Your task to perform on an android device: refresh tabs in the chrome app Image 0: 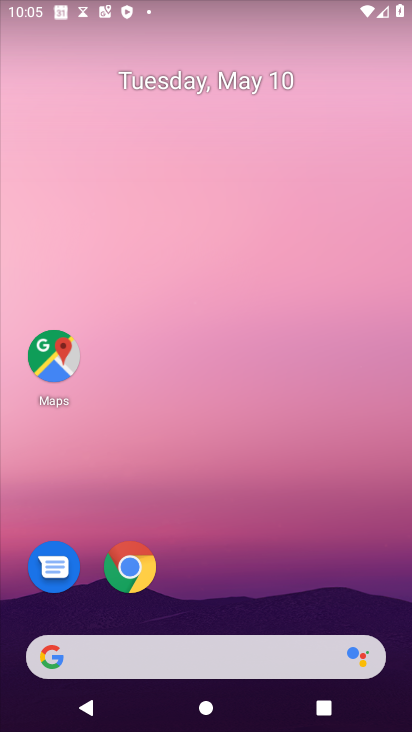
Step 0: click (127, 569)
Your task to perform on an android device: refresh tabs in the chrome app Image 1: 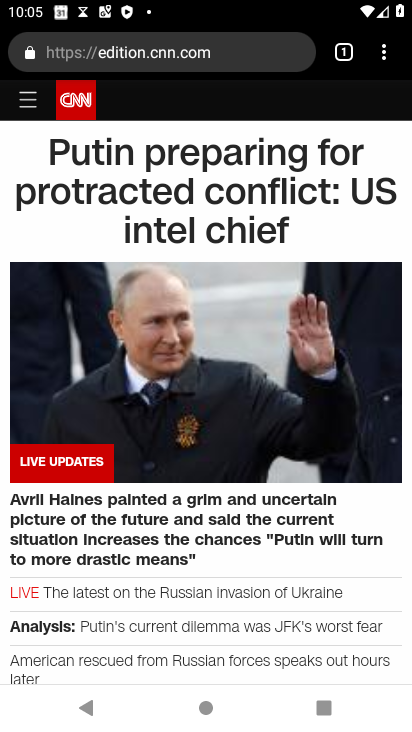
Step 1: click (375, 45)
Your task to perform on an android device: refresh tabs in the chrome app Image 2: 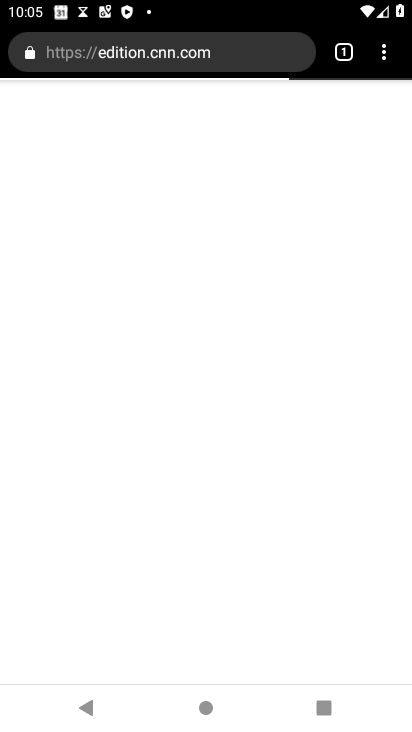
Step 2: click (368, 57)
Your task to perform on an android device: refresh tabs in the chrome app Image 3: 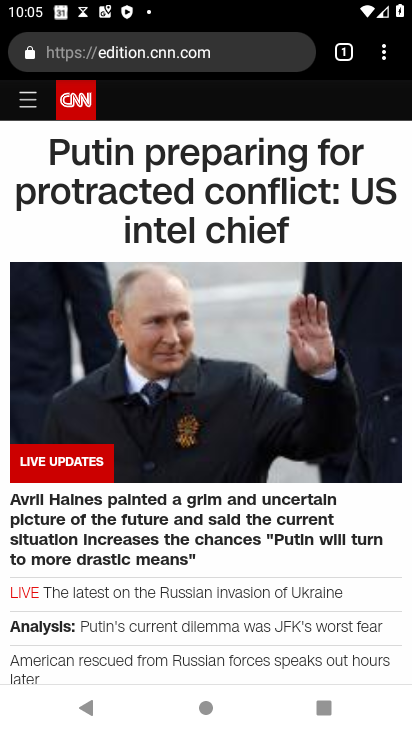
Step 3: click (369, 53)
Your task to perform on an android device: refresh tabs in the chrome app Image 4: 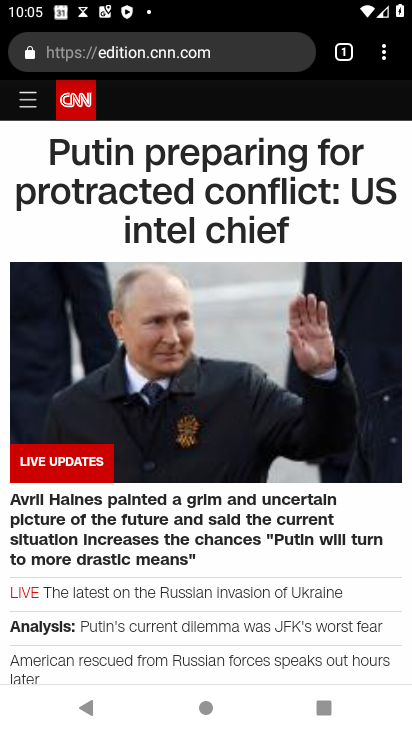
Step 4: click (373, 51)
Your task to perform on an android device: refresh tabs in the chrome app Image 5: 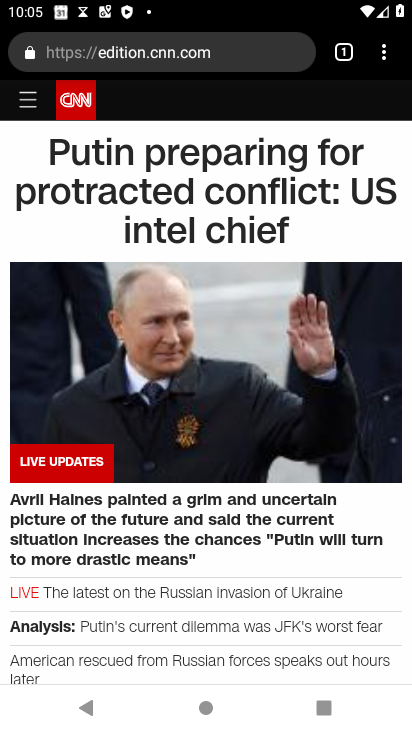
Step 5: click (377, 46)
Your task to perform on an android device: refresh tabs in the chrome app Image 6: 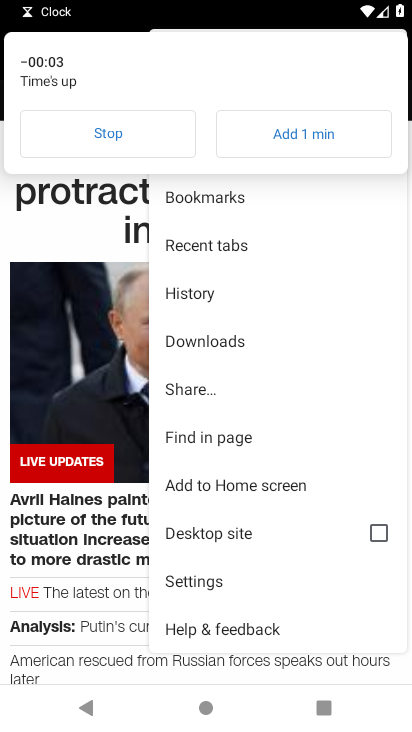
Step 6: click (109, 151)
Your task to perform on an android device: refresh tabs in the chrome app Image 7: 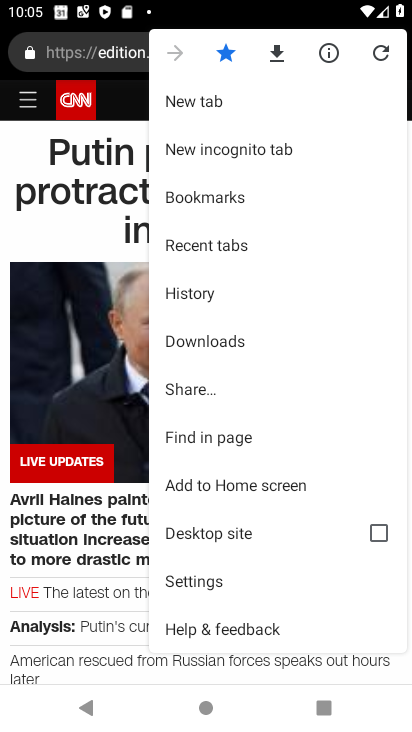
Step 7: click (381, 56)
Your task to perform on an android device: refresh tabs in the chrome app Image 8: 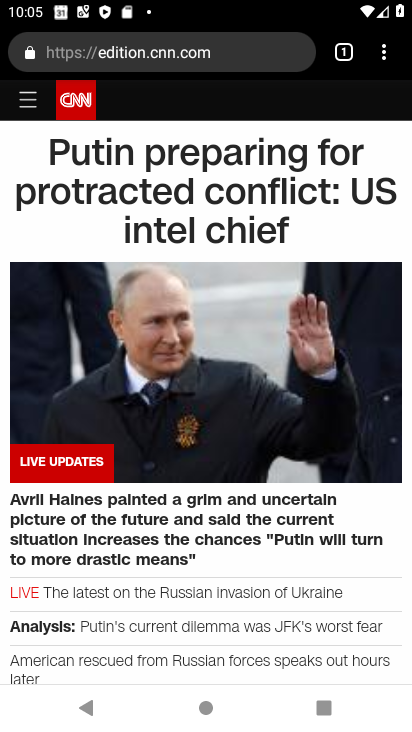
Step 8: task complete